Your task to perform on an android device: open app "Google News" Image 0: 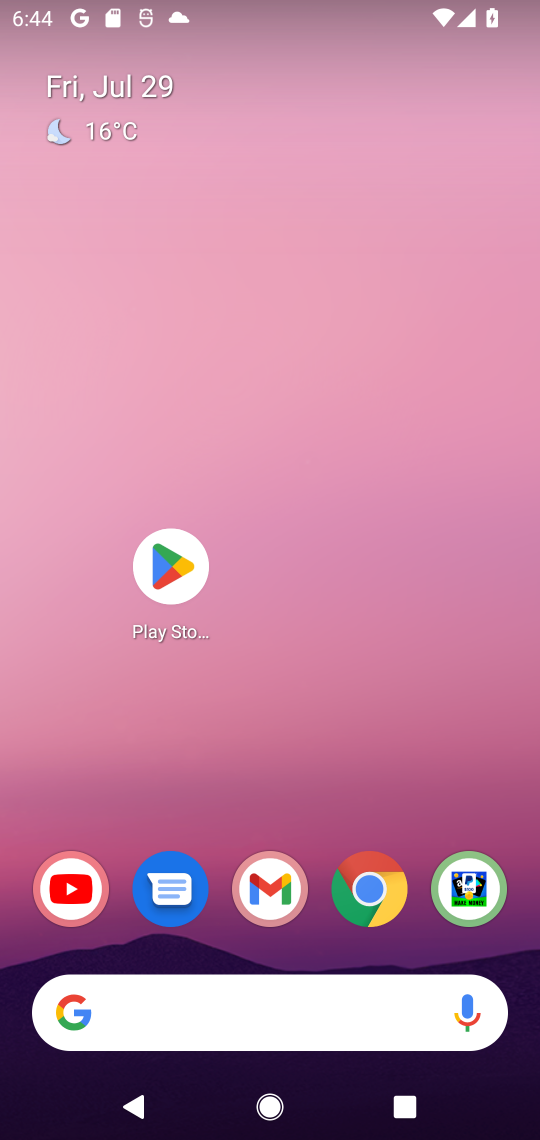
Step 0: press home button
Your task to perform on an android device: open app "Google News" Image 1: 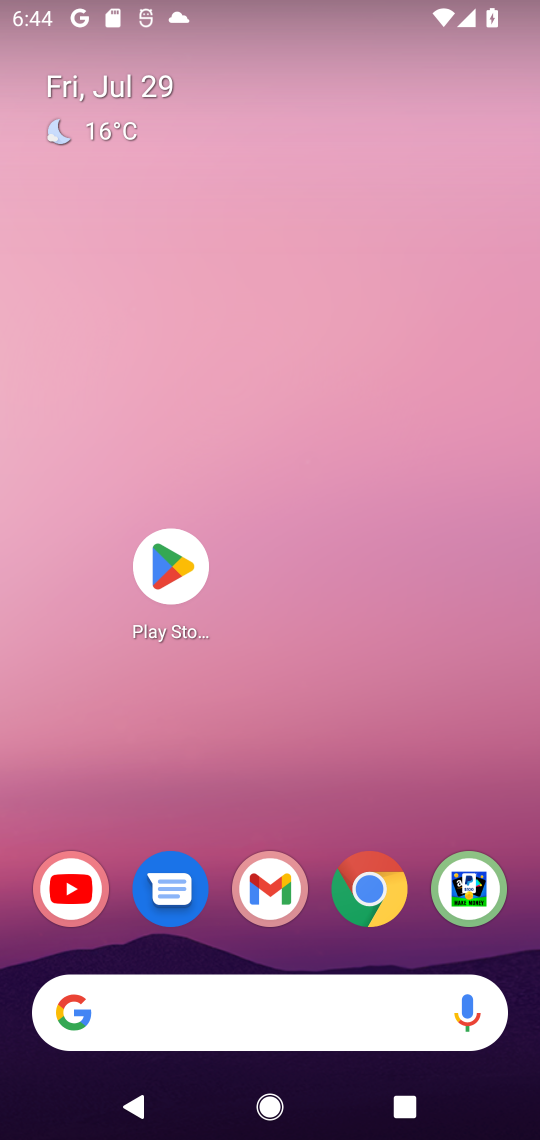
Step 1: click (164, 559)
Your task to perform on an android device: open app "Google News" Image 2: 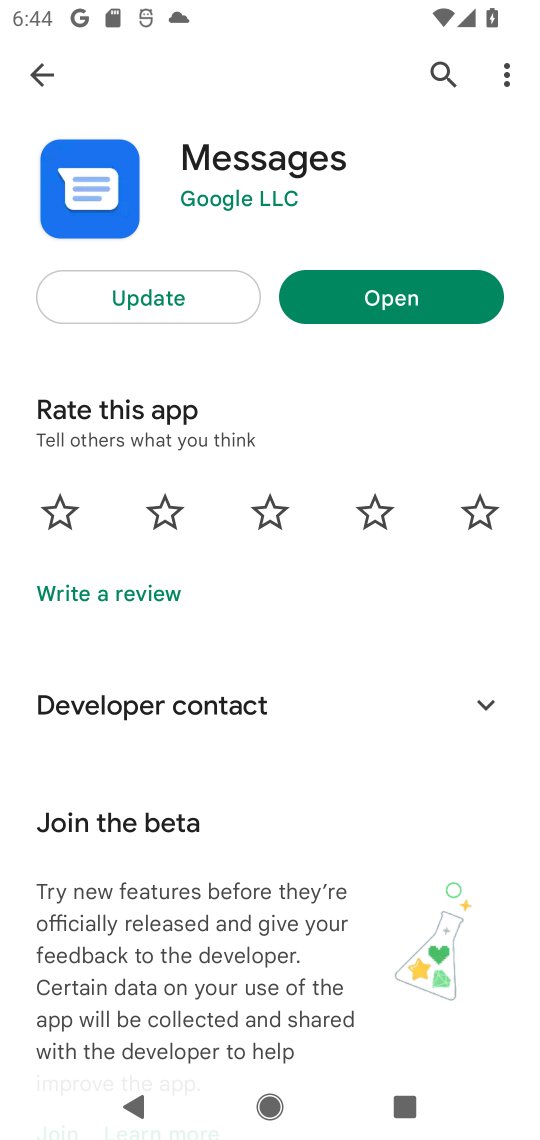
Step 2: click (442, 56)
Your task to perform on an android device: open app "Google News" Image 3: 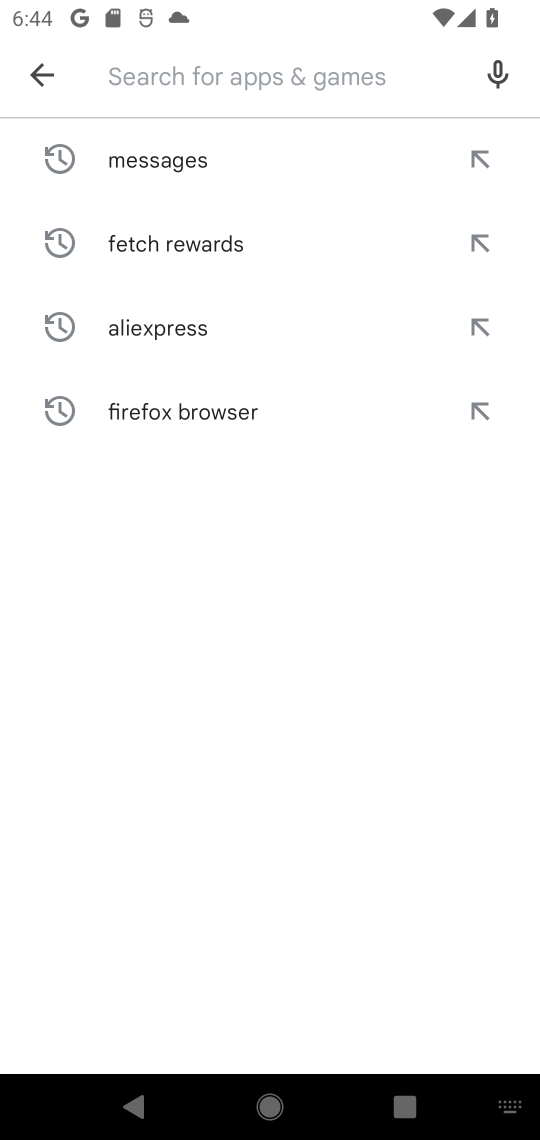
Step 3: type "Google News""
Your task to perform on an android device: open app "Google News" Image 4: 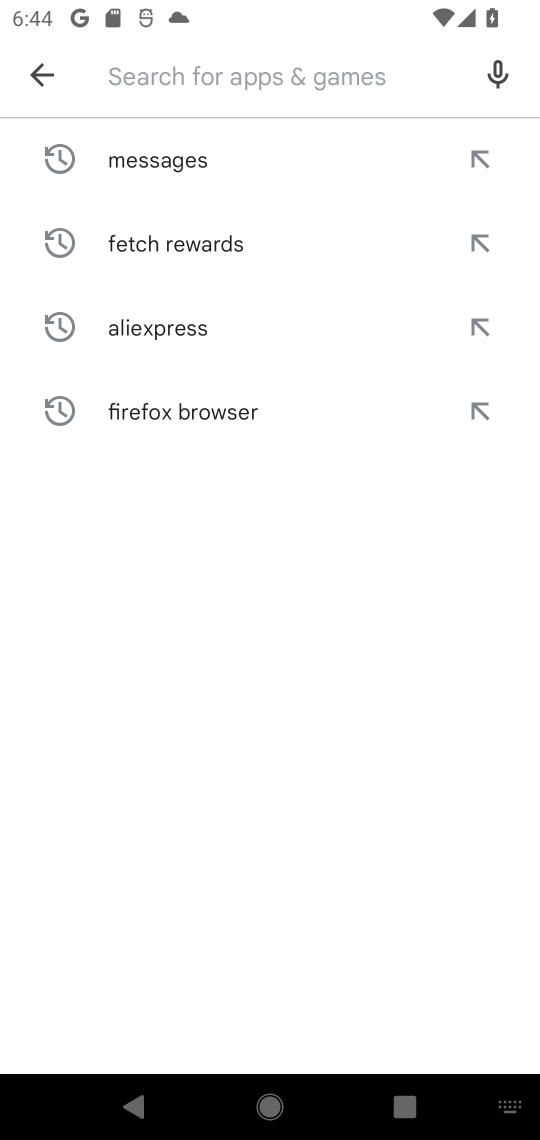
Step 4: click (109, 71)
Your task to perform on an android device: open app "Google News" Image 5: 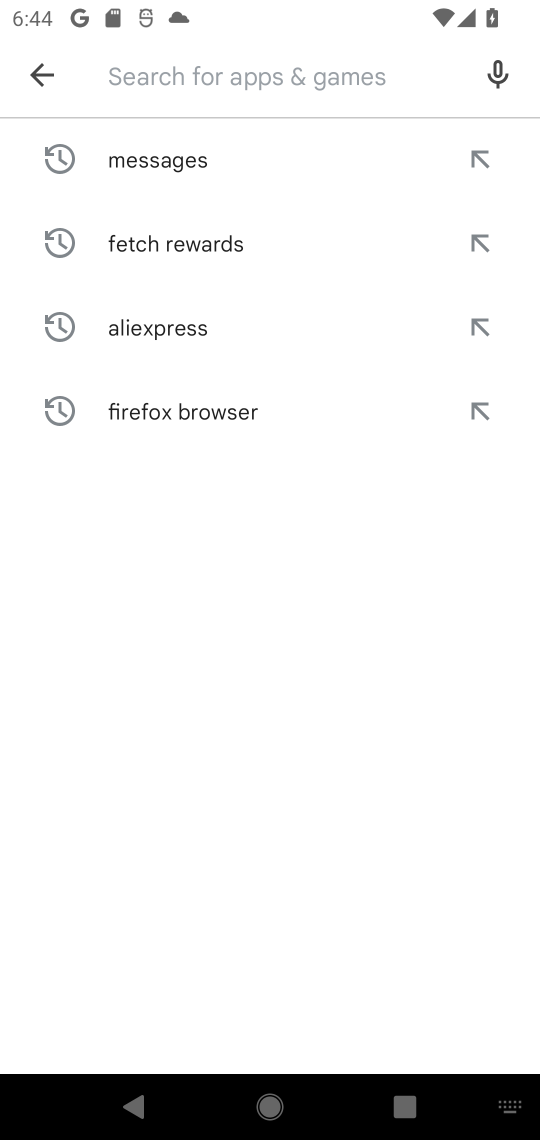
Step 5: type "Google News""
Your task to perform on an android device: open app "Google News" Image 6: 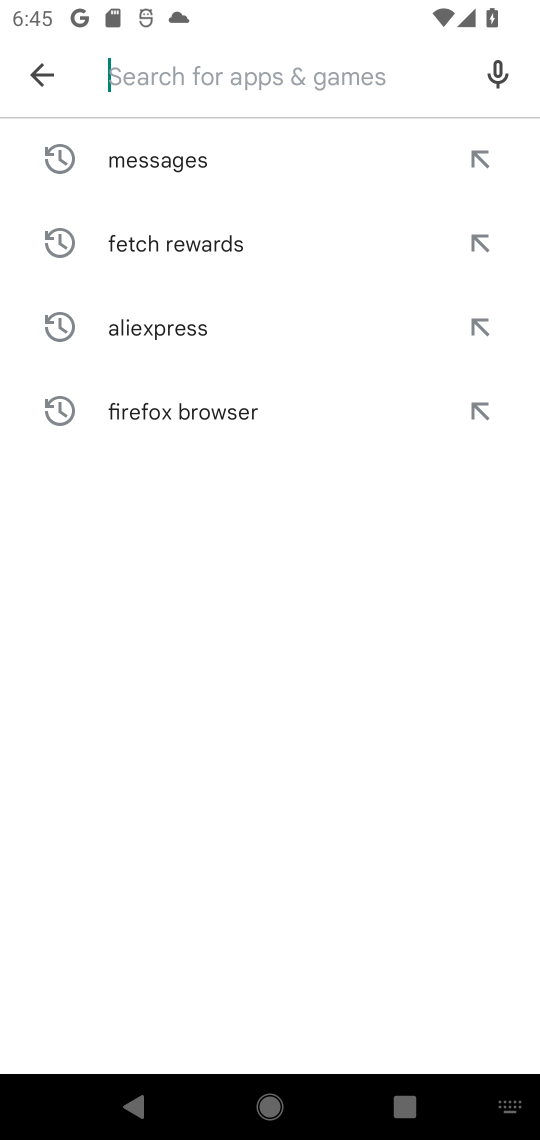
Step 6: click (47, 62)
Your task to perform on an android device: open app "Google News" Image 7: 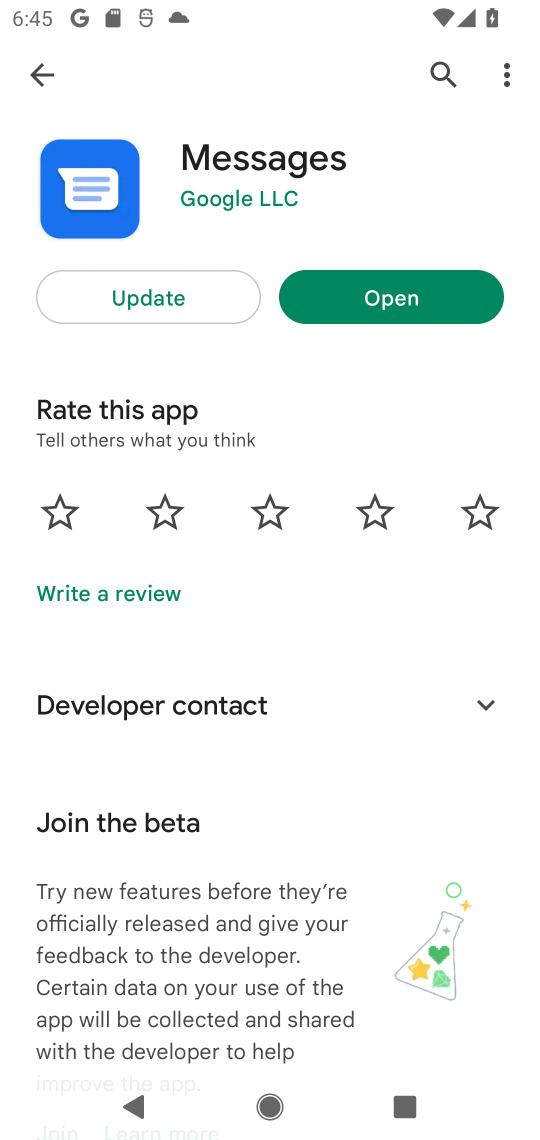
Step 7: click (430, 71)
Your task to perform on an android device: open app "Google News" Image 8: 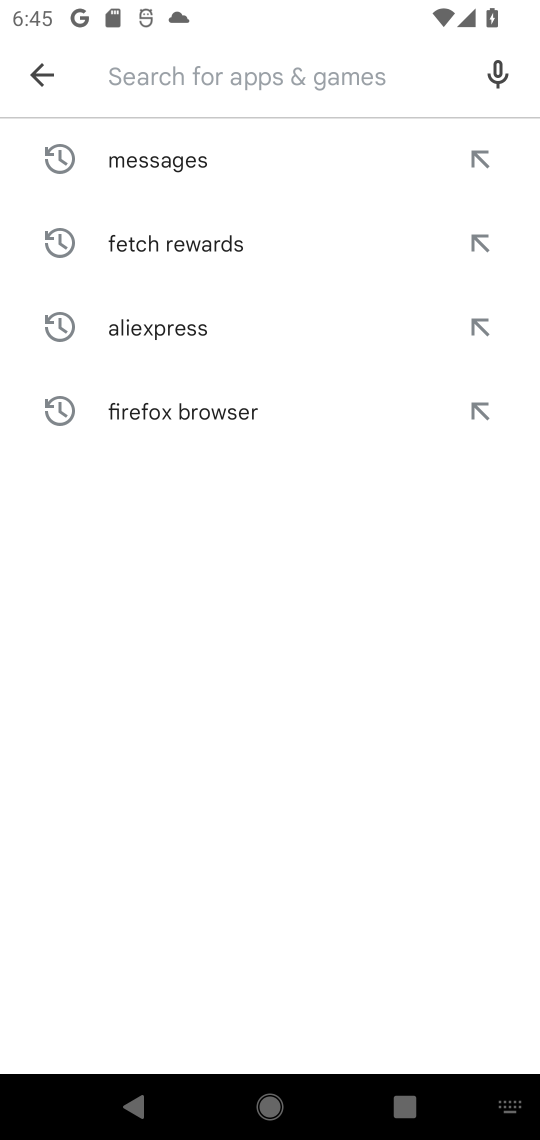
Step 8: type "Google News"
Your task to perform on an android device: open app "Google News" Image 9: 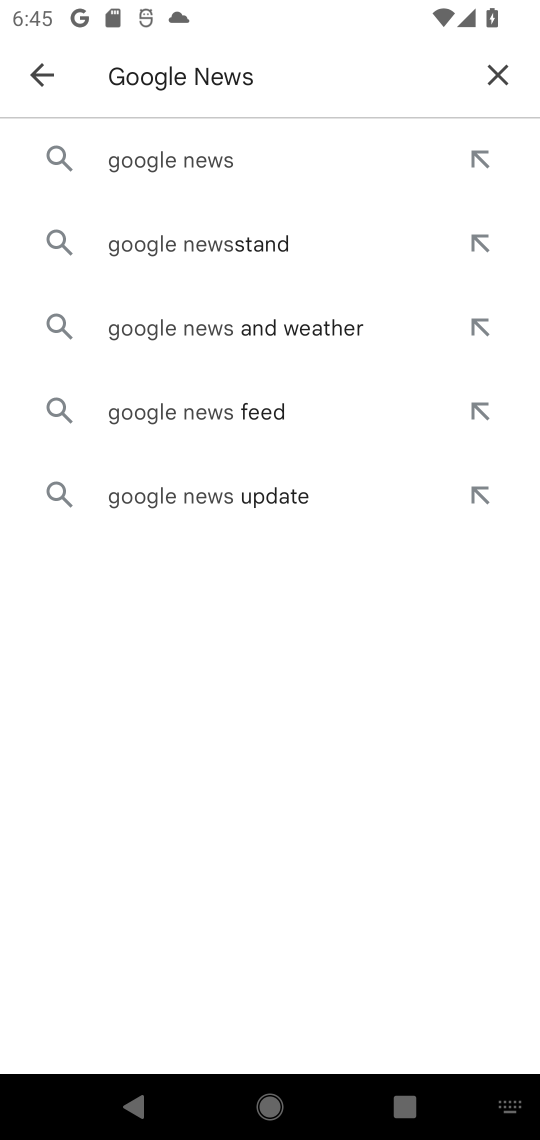
Step 9: click (212, 161)
Your task to perform on an android device: open app "Google News" Image 10: 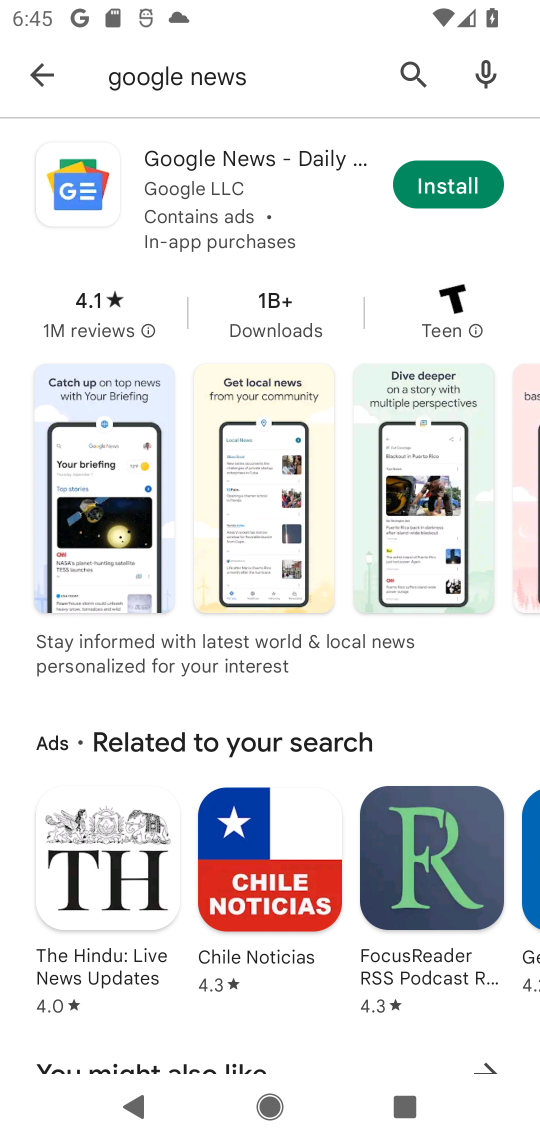
Step 10: task complete